Your task to perform on an android device: check android version Image 0: 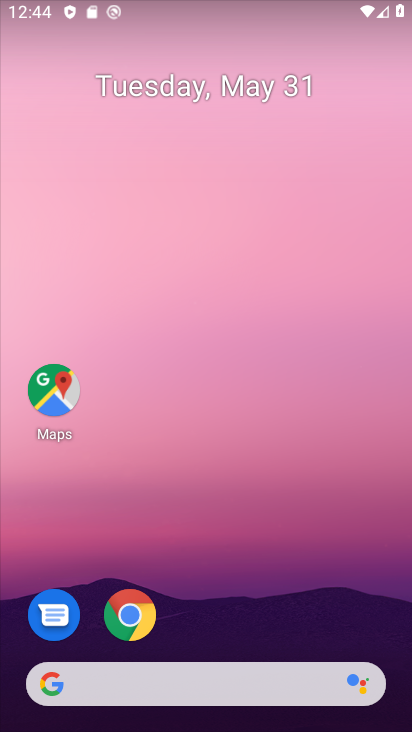
Step 0: drag from (378, 618) to (382, 131)
Your task to perform on an android device: check android version Image 1: 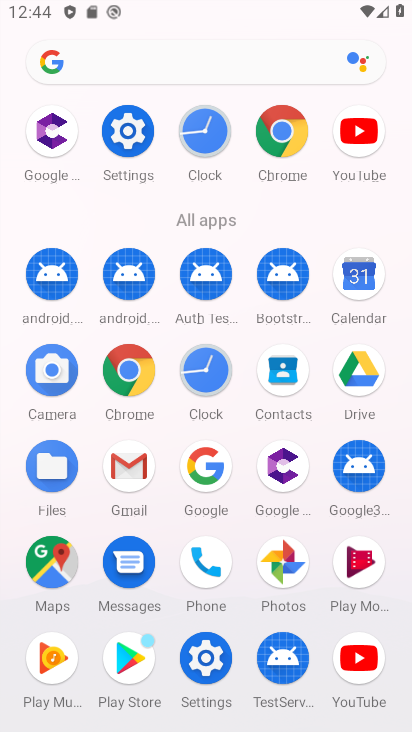
Step 1: click (127, 132)
Your task to perform on an android device: check android version Image 2: 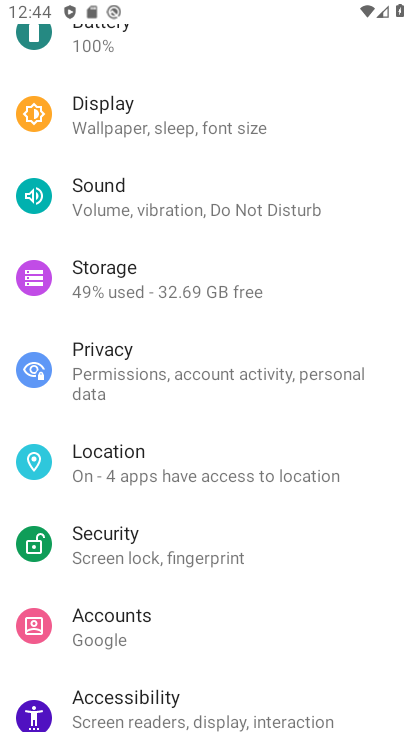
Step 2: drag from (271, 668) to (324, 300)
Your task to perform on an android device: check android version Image 3: 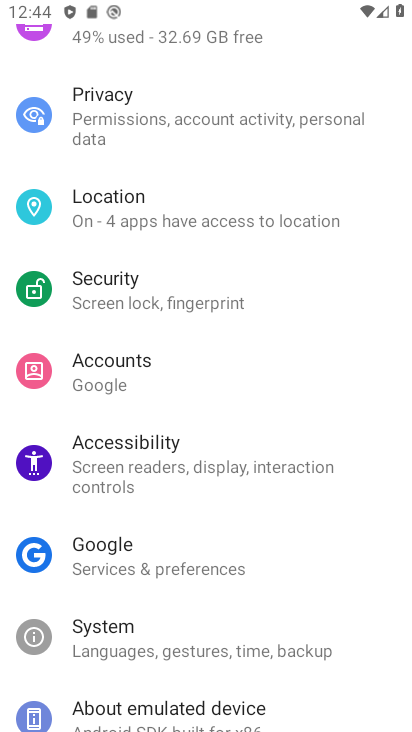
Step 3: drag from (275, 648) to (330, 277)
Your task to perform on an android device: check android version Image 4: 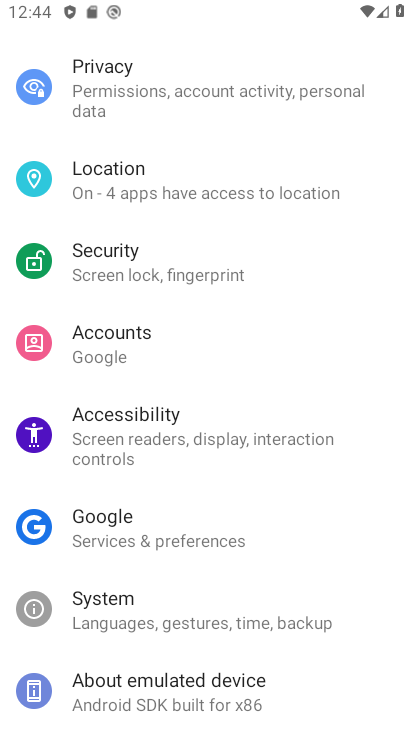
Step 4: drag from (288, 204) to (313, 611)
Your task to perform on an android device: check android version Image 5: 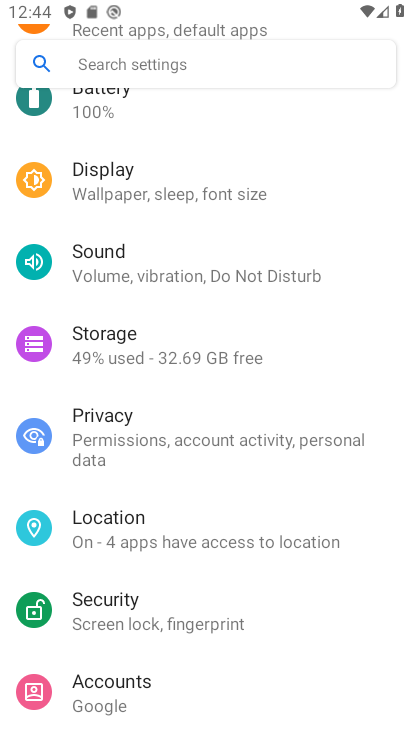
Step 5: drag from (242, 673) to (281, 155)
Your task to perform on an android device: check android version Image 6: 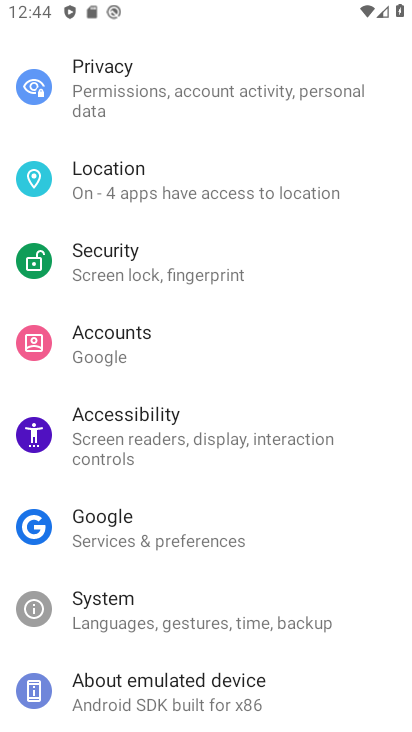
Step 6: drag from (263, 651) to (286, 308)
Your task to perform on an android device: check android version Image 7: 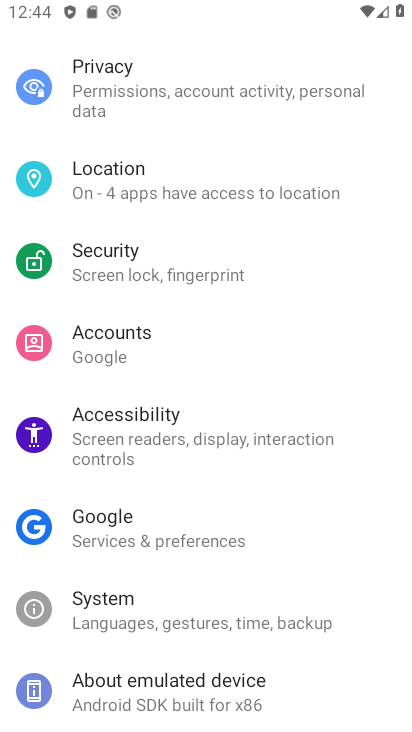
Step 7: click (183, 692)
Your task to perform on an android device: check android version Image 8: 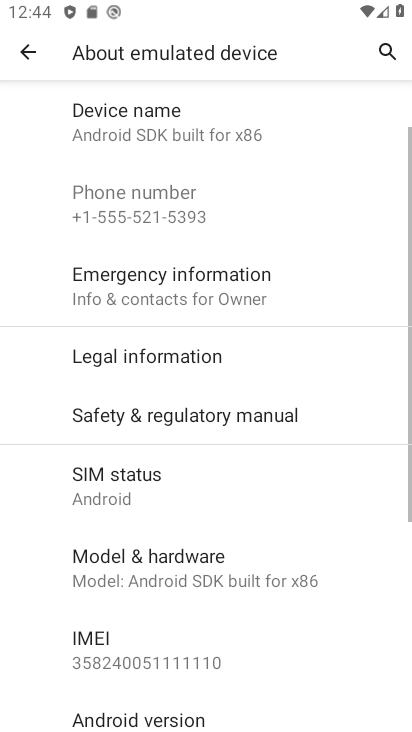
Step 8: click (196, 709)
Your task to perform on an android device: check android version Image 9: 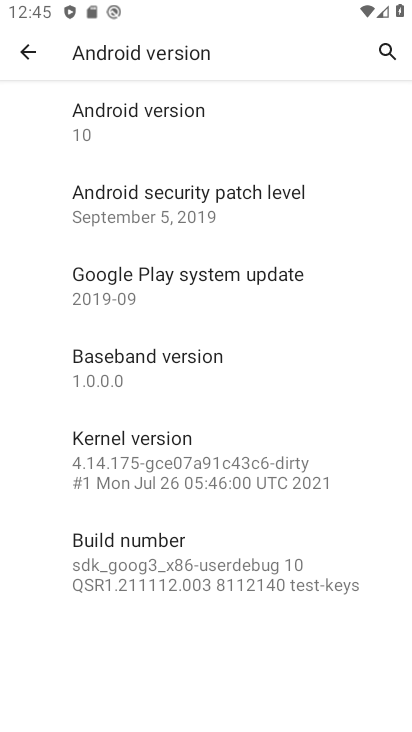
Step 9: click (153, 119)
Your task to perform on an android device: check android version Image 10: 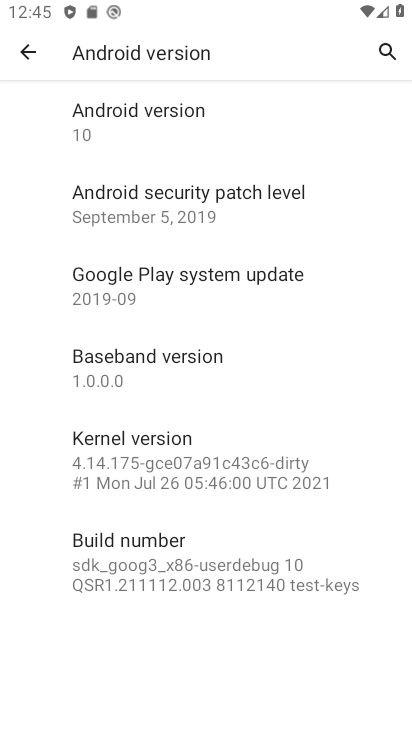
Step 10: click (196, 129)
Your task to perform on an android device: check android version Image 11: 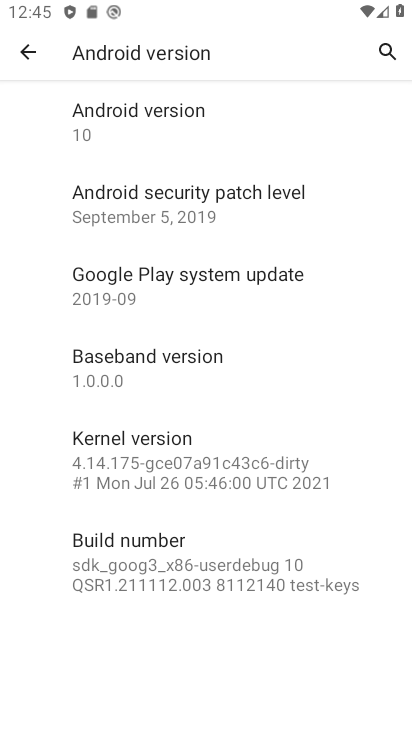
Step 11: click (132, 112)
Your task to perform on an android device: check android version Image 12: 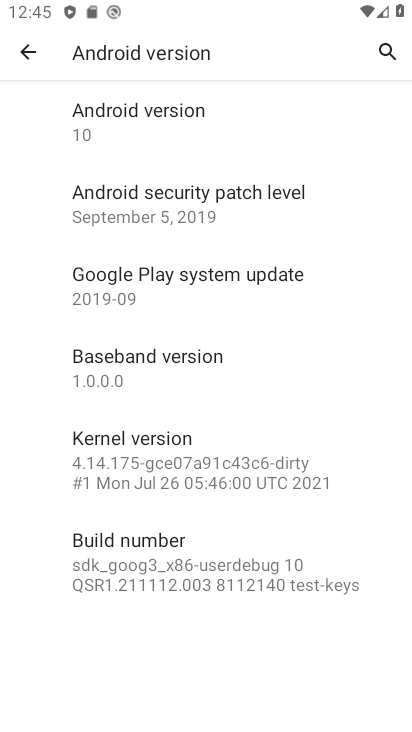
Step 12: task complete